Your task to perform on an android device: refresh tabs in the chrome app Image 0: 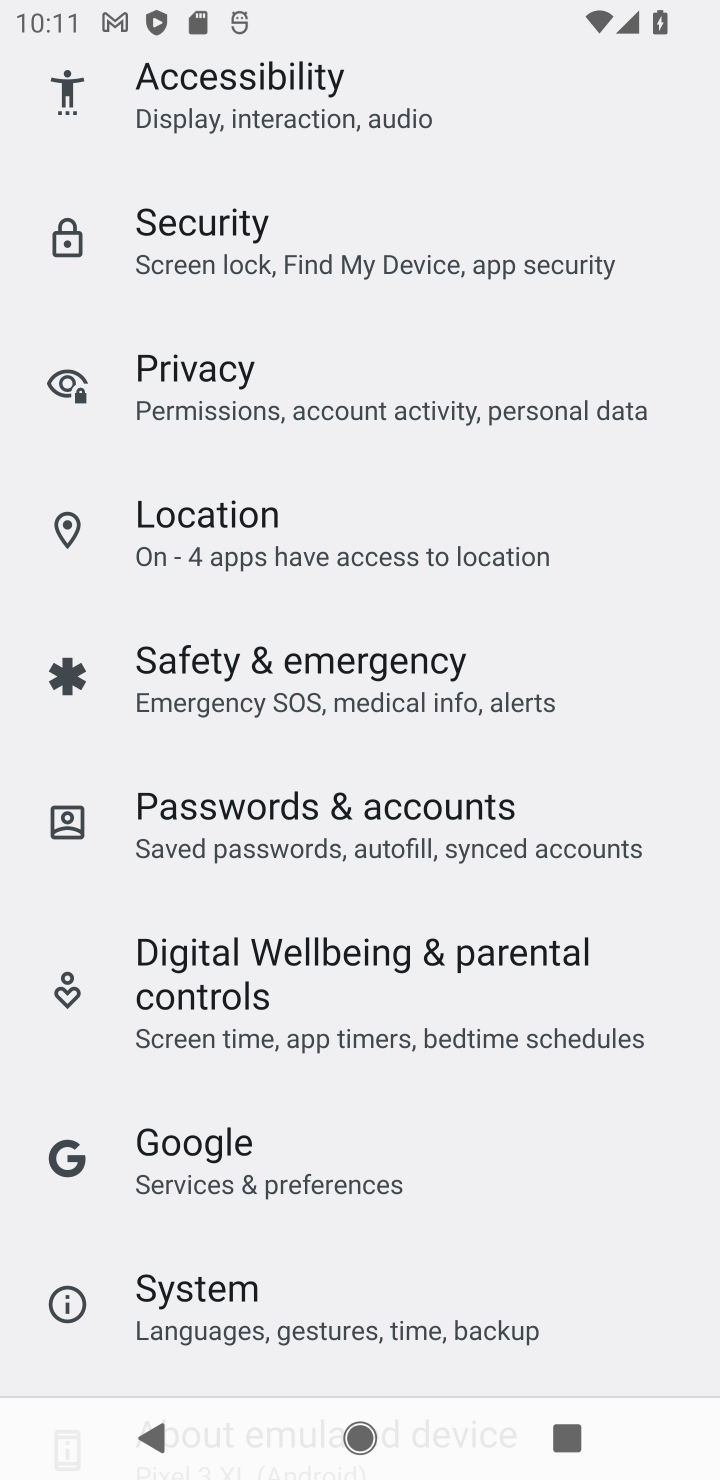
Step 0: press home button
Your task to perform on an android device: refresh tabs in the chrome app Image 1: 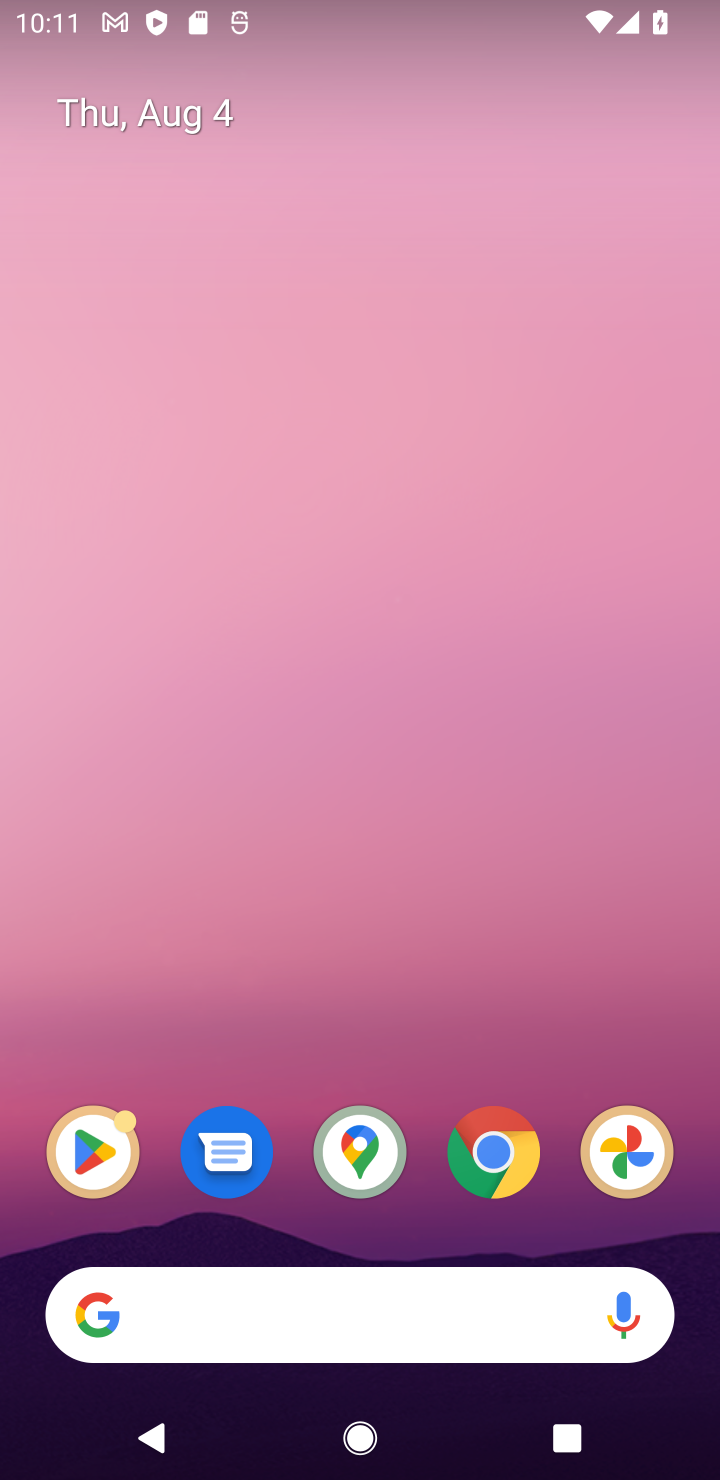
Step 1: drag from (277, 1018) to (250, 0)
Your task to perform on an android device: refresh tabs in the chrome app Image 2: 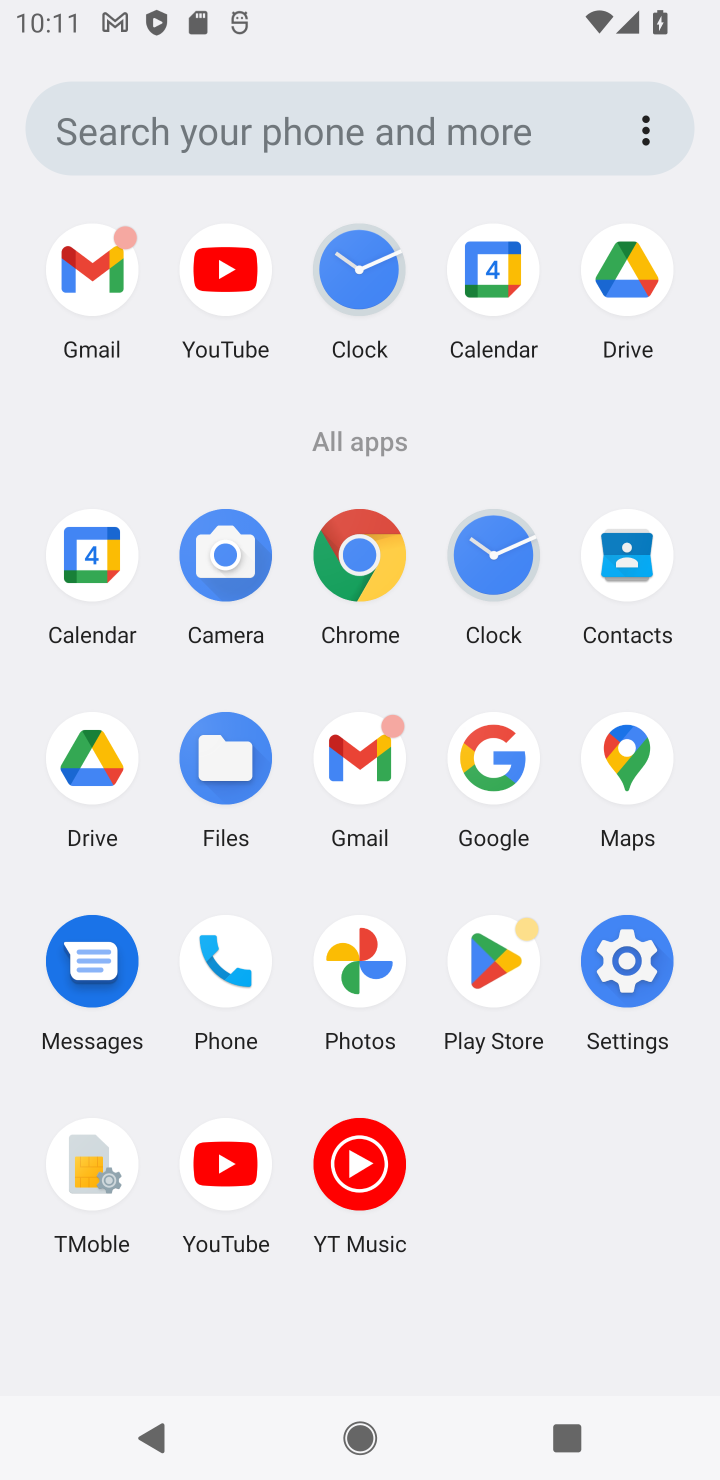
Step 2: click (352, 554)
Your task to perform on an android device: refresh tabs in the chrome app Image 3: 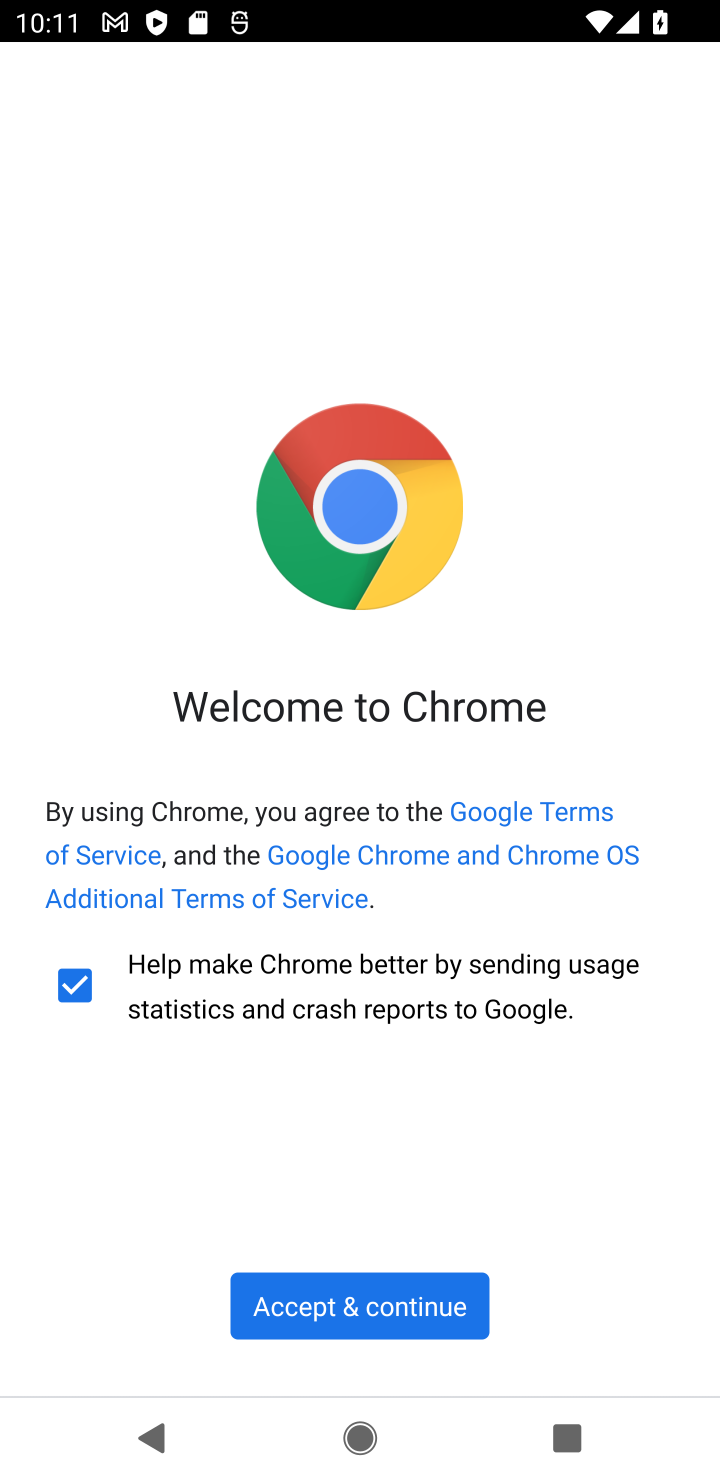
Step 3: click (359, 1303)
Your task to perform on an android device: refresh tabs in the chrome app Image 4: 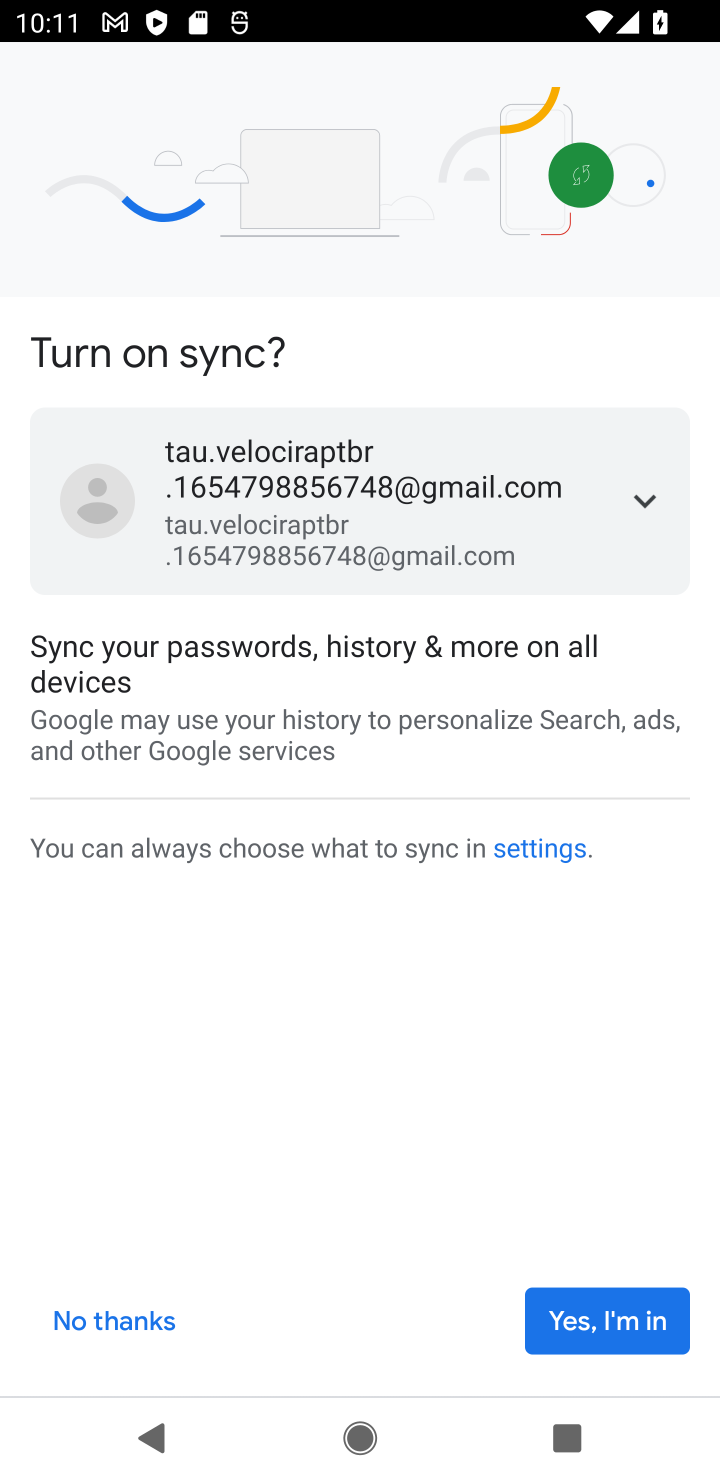
Step 4: click (591, 1309)
Your task to perform on an android device: refresh tabs in the chrome app Image 5: 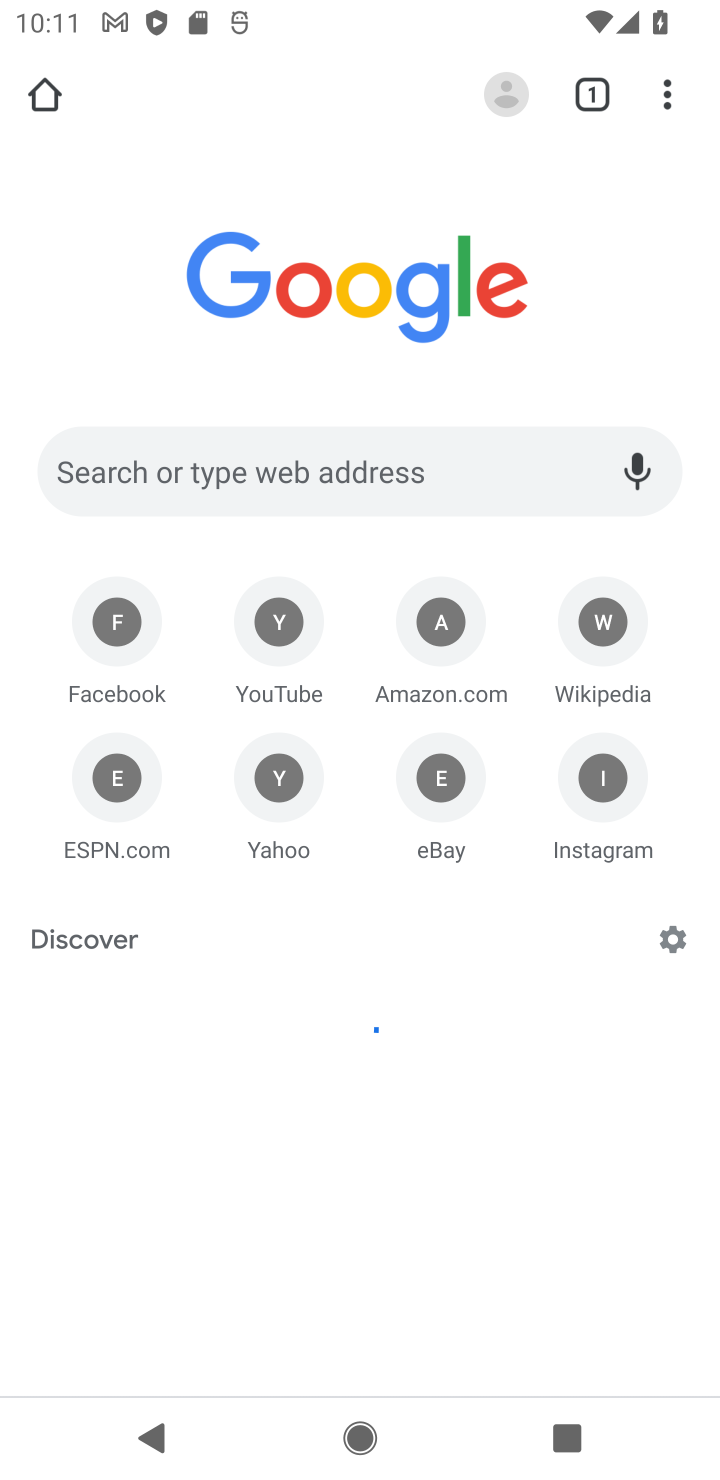
Step 5: click (617, 1326)
Your task to perform on an android device: refresh tabs in the chrome app Image 6: 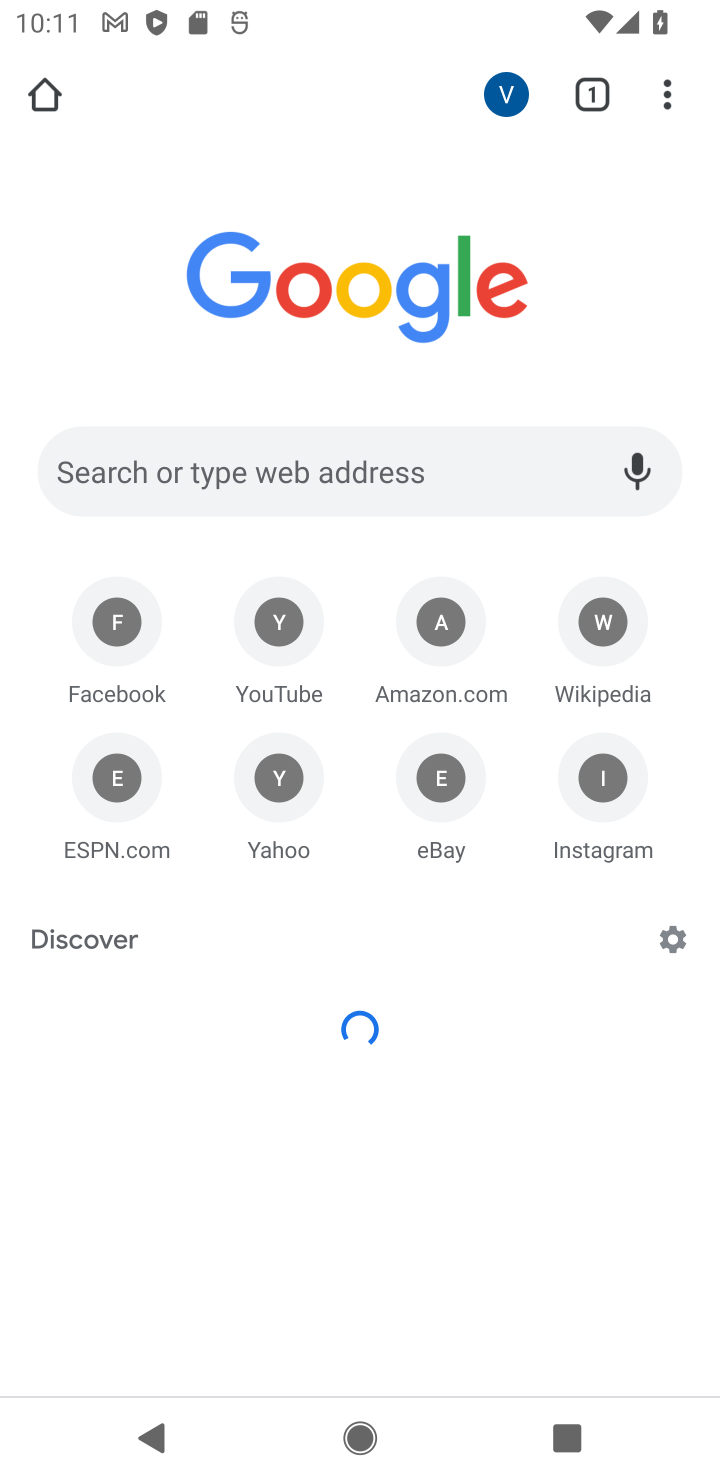
Step 6: click (660, 99)
Your task to perform on an android device: refresh tabs in the chrome app Image 7: 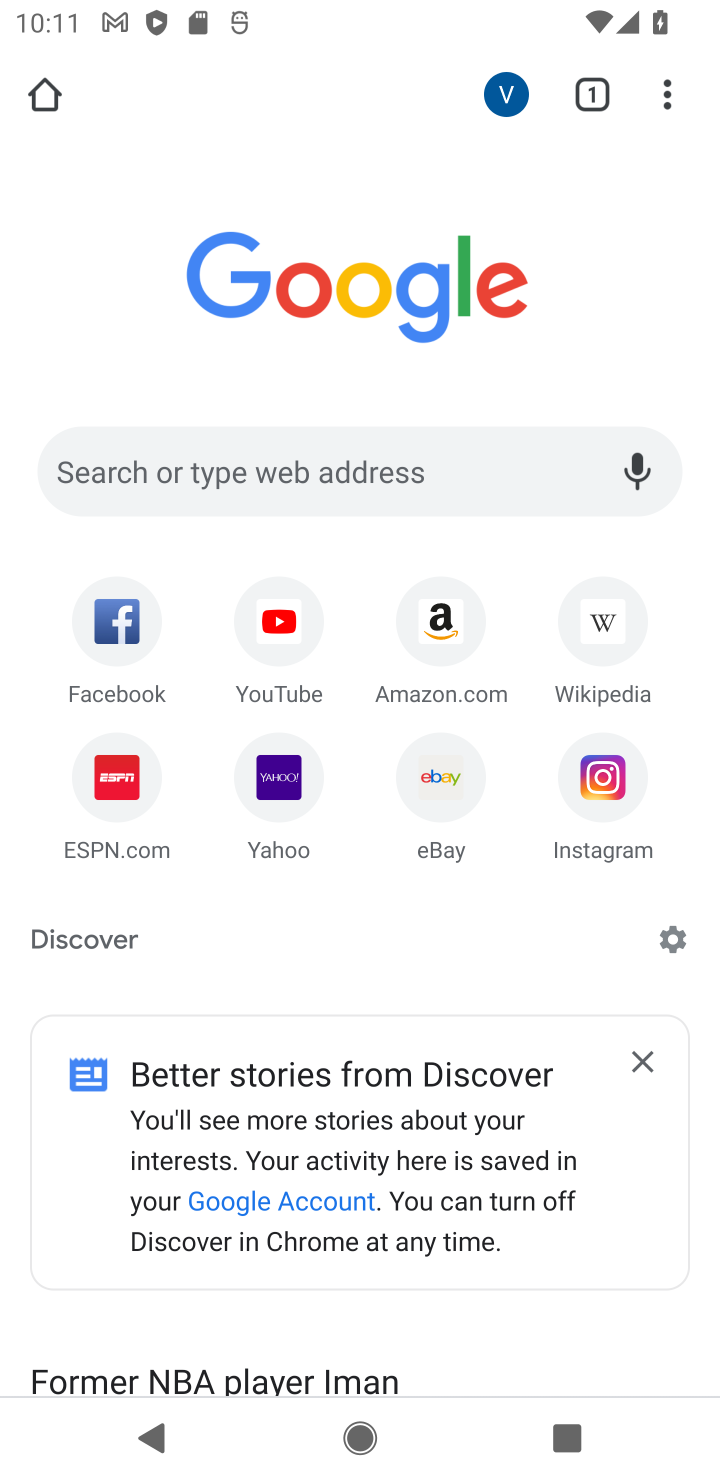
Step 7: click (656, 102)
Your task to perform on an android device: refresh tabs in the chrome app Image 8: 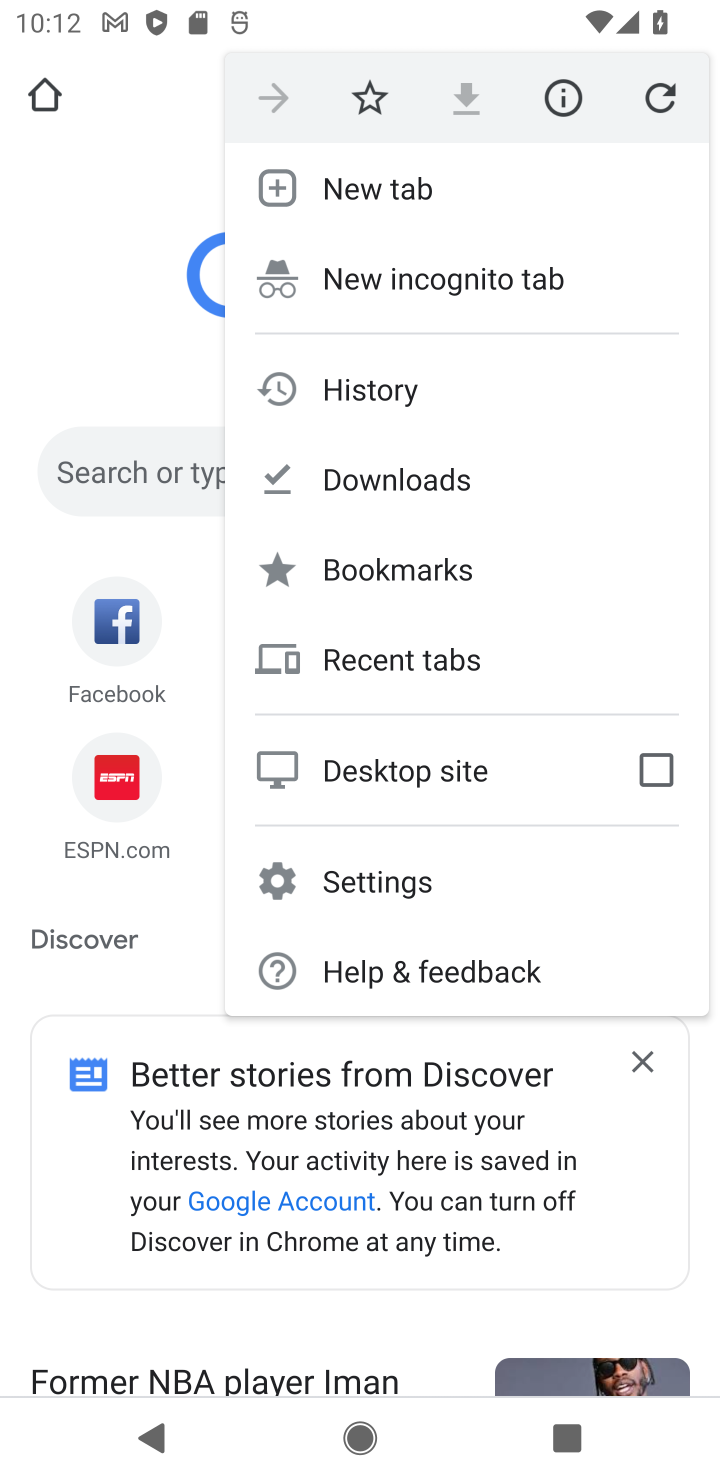
Step 8: click (676, 112)
Your task to perform on an android device: refresh tabs in the chrome app Image 9: 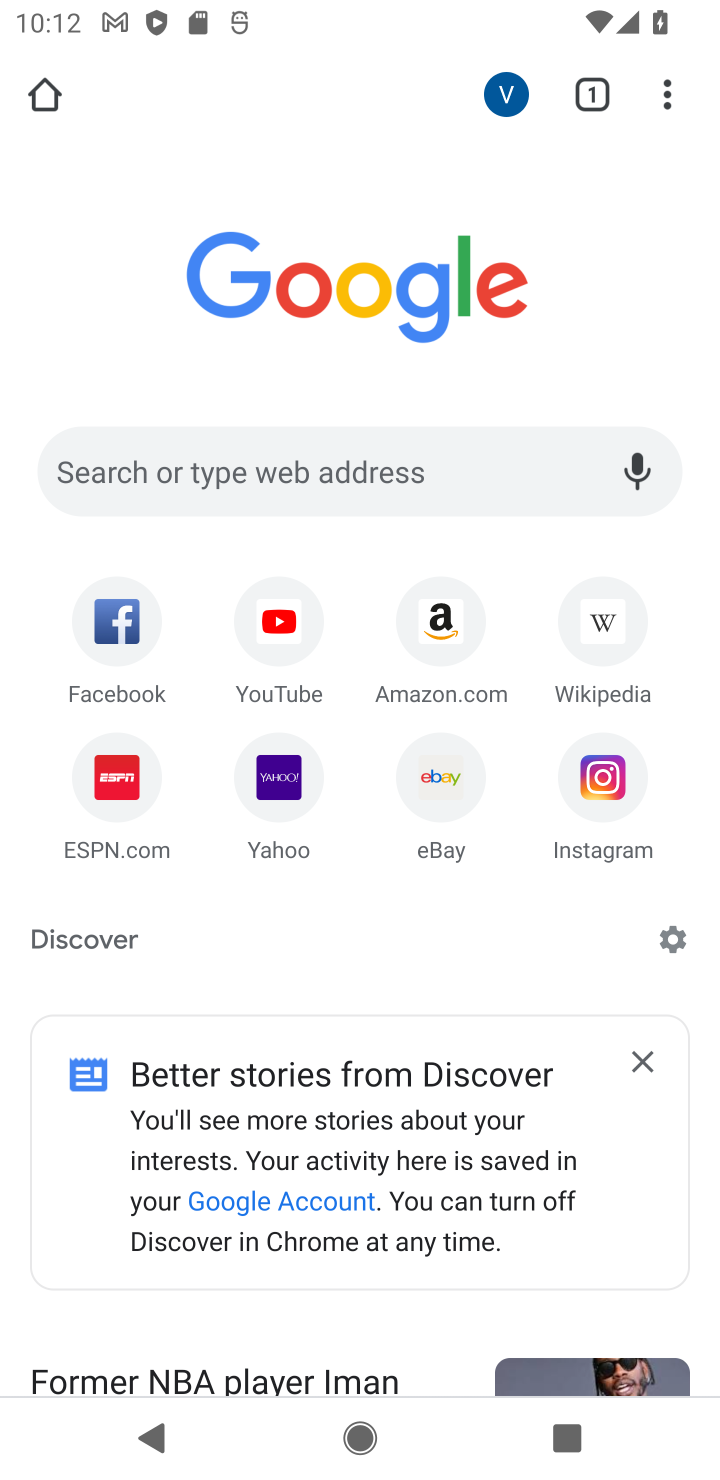
Step 9: task complete